Your task to perform on an android device: open app "Mercado Libre" Image 0: 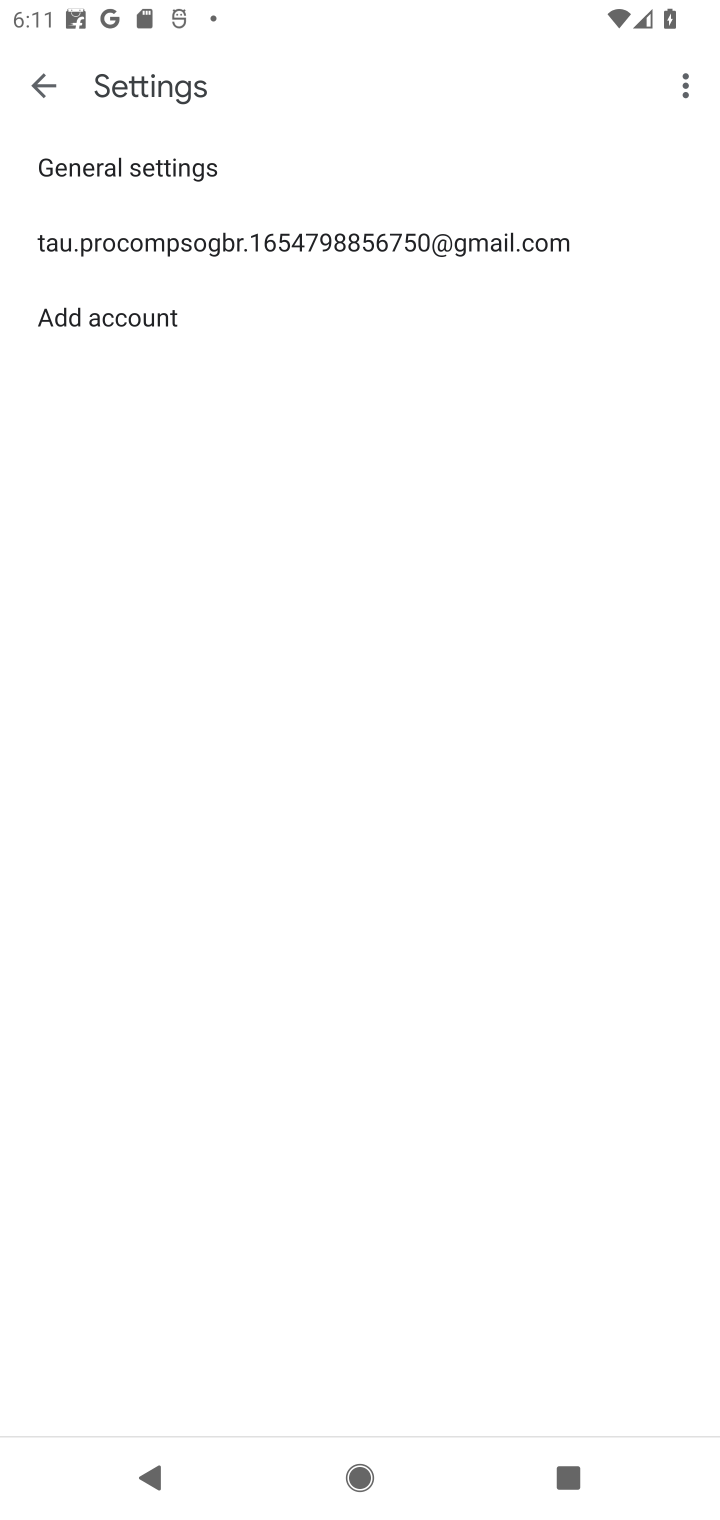
Step 0: press home button
Your task to perform on an android device: open app "Mercado Libre" Image 1: 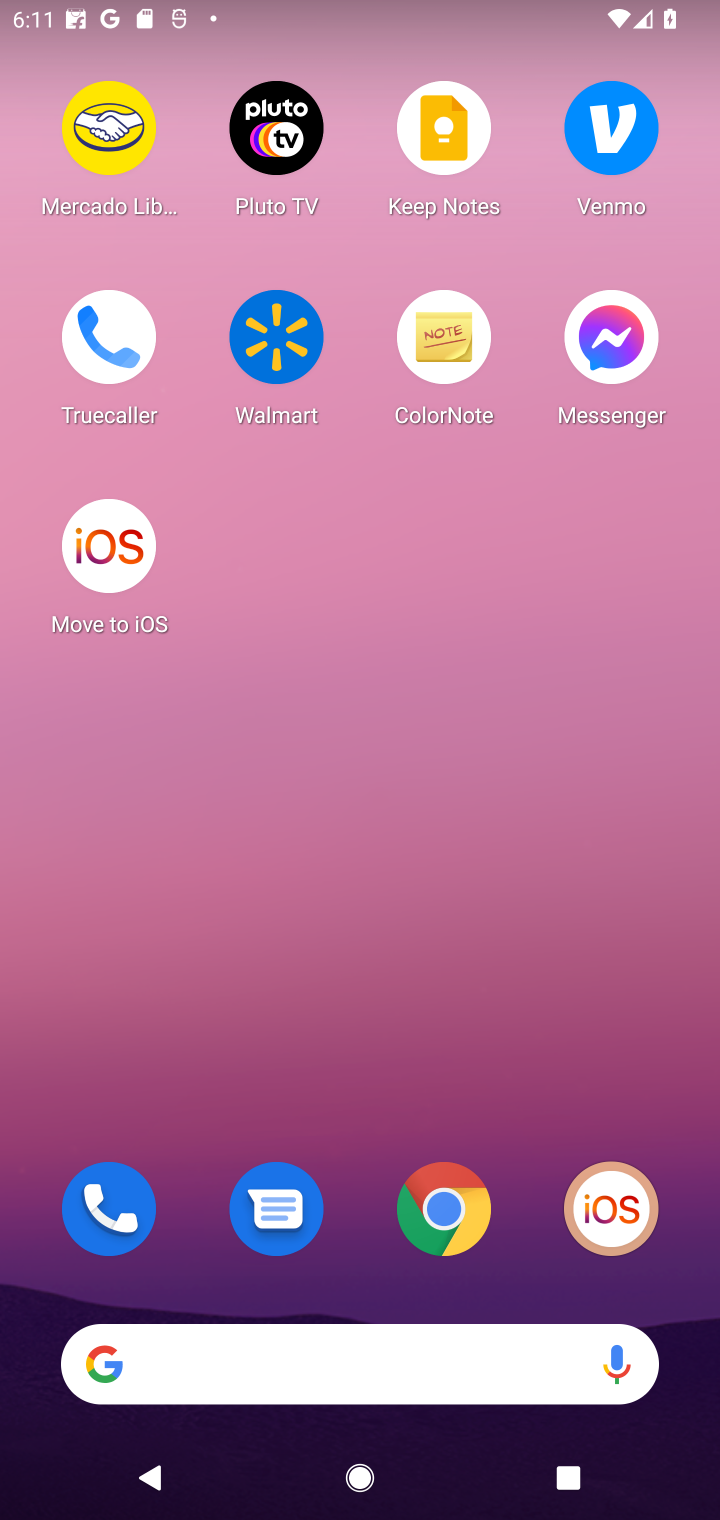
Step 1: click (135, 186)
Your task to perform on an android device: open app "Mercado Libre" Image 2: 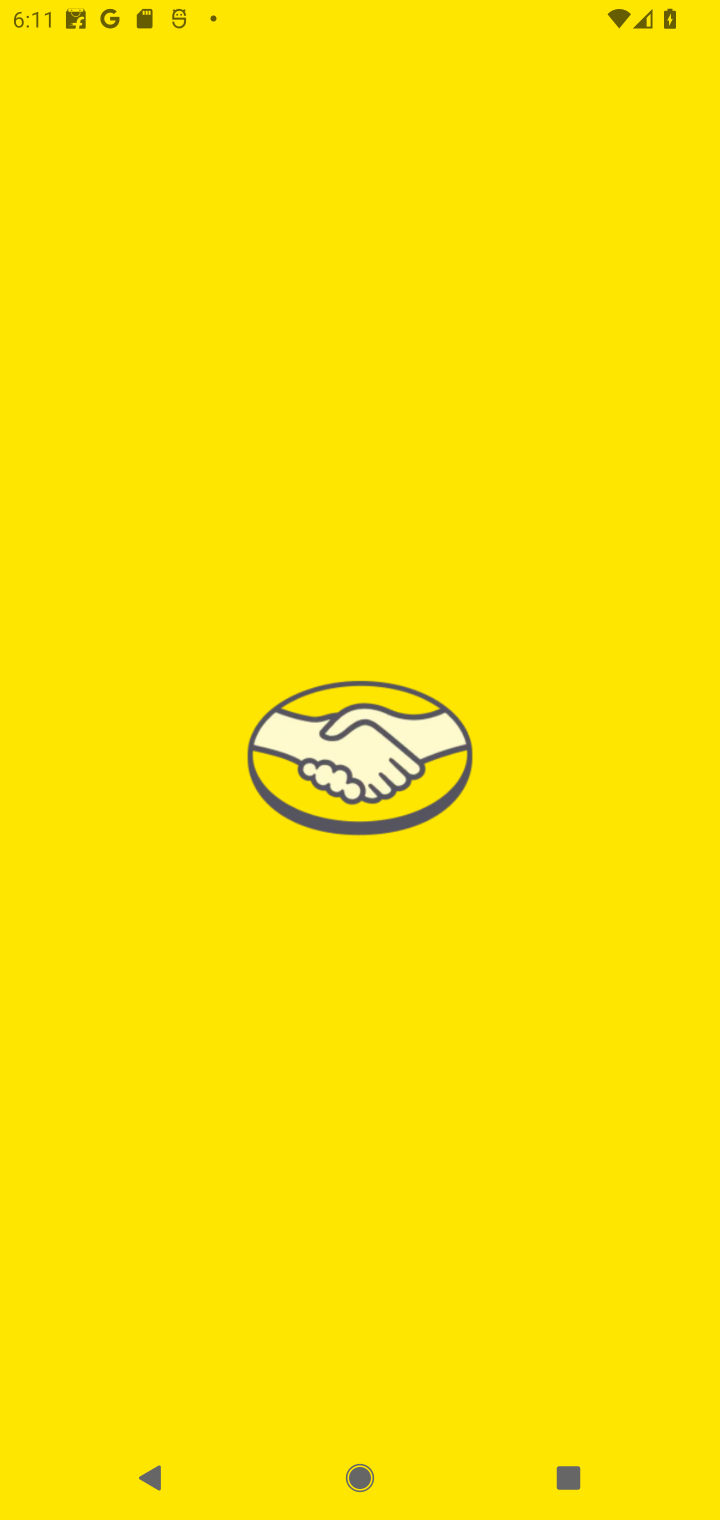
Step 2: task complete